Your task to perform on an android device: allow notifications from all sites in the chrome app Image 0: 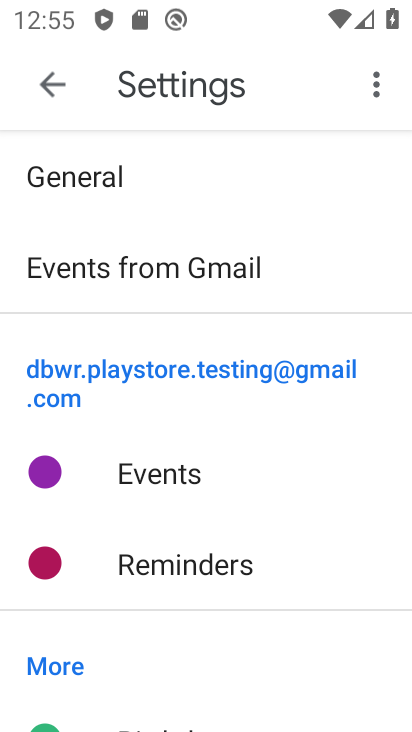
Step 0: press home button
Your task to perform on an android device: allow notifications from all sites in the chrome app Image 1: 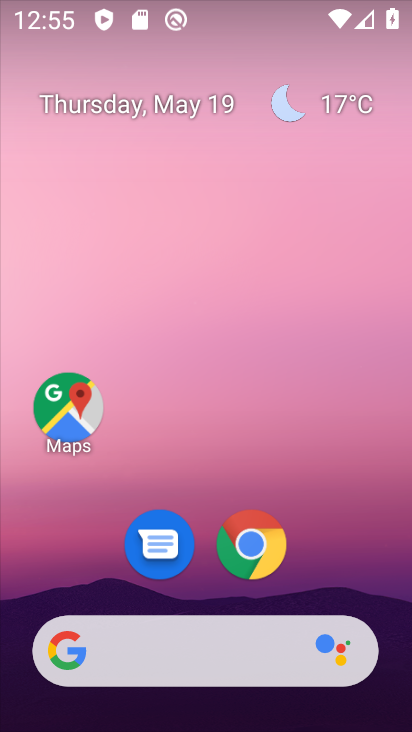
Step 1: drag from (202, 726) to (211, 282)
Your task to perform on an android device: allow notifications from all sites in the chrome app Image 2: 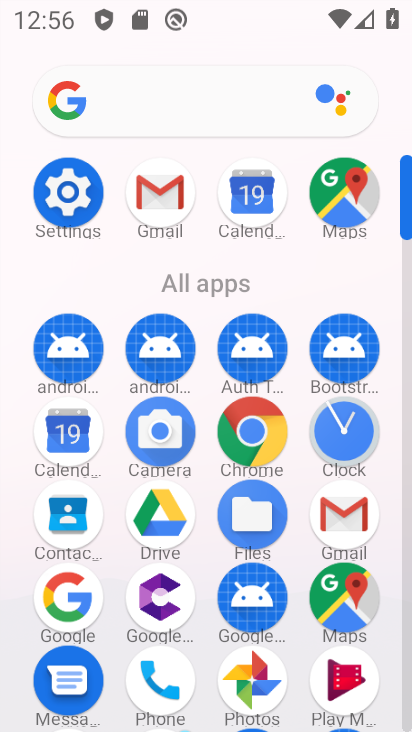
Step 2: click (252, 428)
Your task to perform on an android device: allow notifications from all sites in the chrome app Image 3: 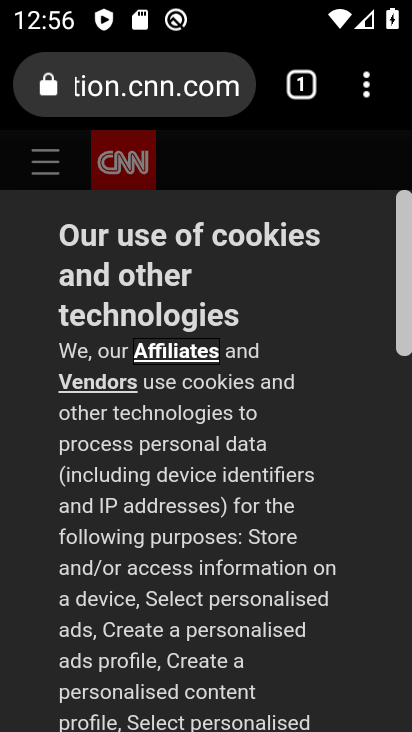
Step 3: click (369, 95)
Your task to perform on an android device: allow notifications from all sites in the chrome app Image 4: 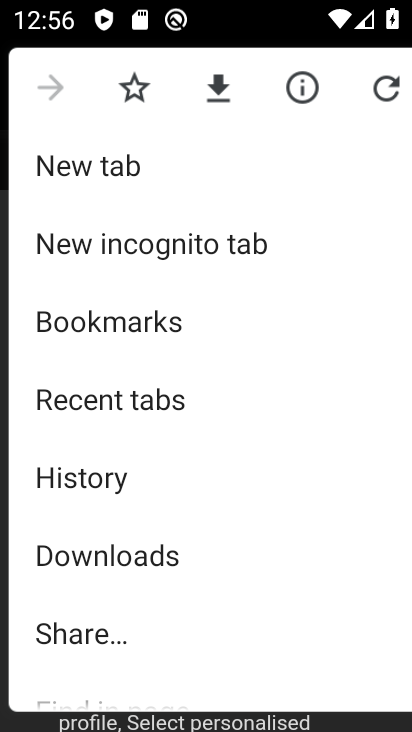
Step 4: drag from (102, 600) to (121, 185)
Your task to perform on an android device: allow notifications from all sites in the chrome app Image 5: 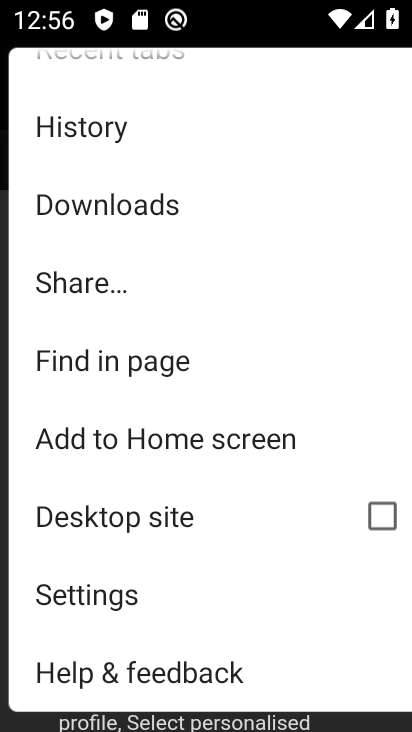
Step 5: click (104, 593)
Your task to perform on an android device: allow notifications from all sites in the chrome app Image 6: 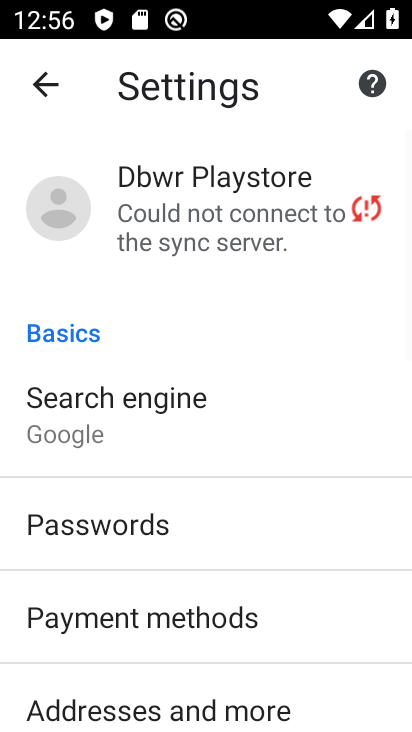
Step 6: drag from (185, 678) to (204, 255)
Your task to perform on an android device: allow notifications from all sites in the chrome app Image 7: 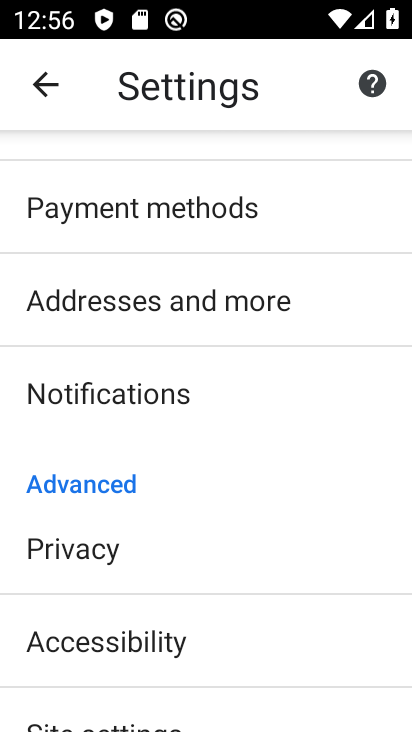
Step 7: click (107, 392)
Your task to perform on an android device: allow notifications from all sites in the chrome app Image 8: 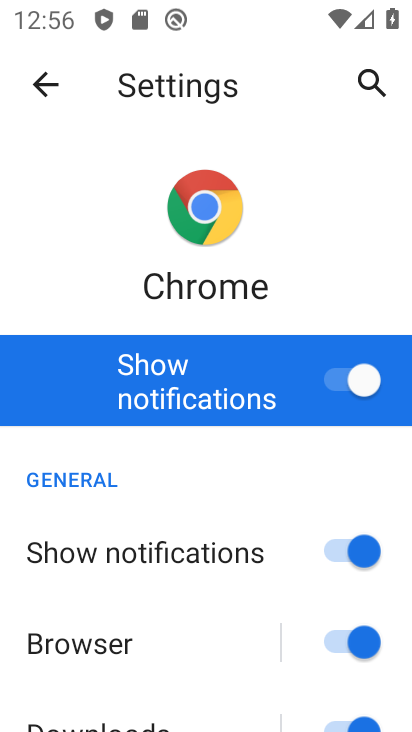
Step 8: task complete